Your task to perform on an android device: choose inbox layout in the gmail app Image 0: 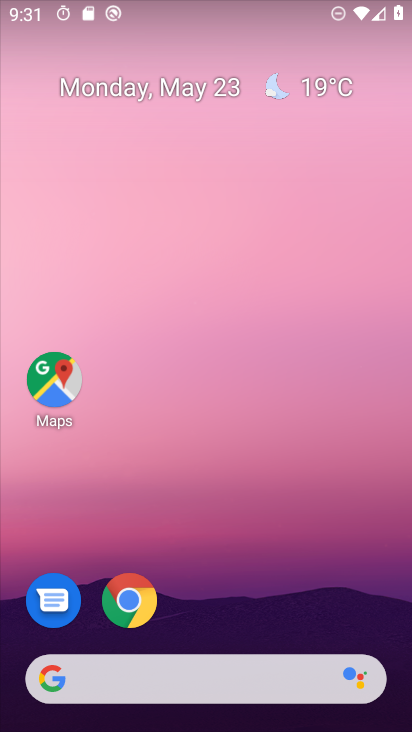
Step 0: press home button
Your task to perform on an android device: choose inbox layout in the gmail app Image 1: 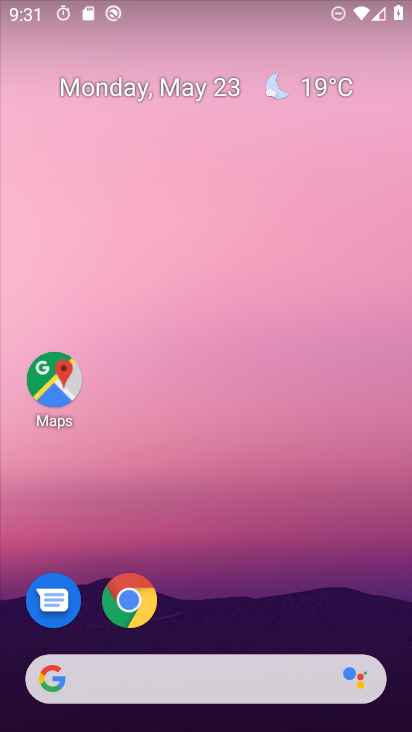
Step 1: drag from (11, 584) to (247, 87)
Your task to perform on an android device: choose inbox layout in the gmail app Image 2: 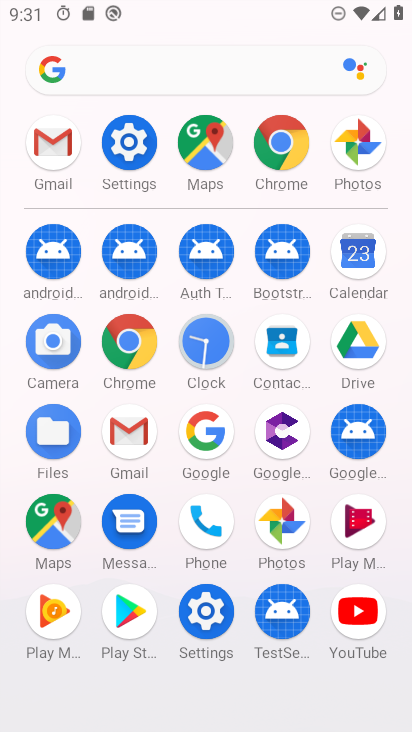
Step 2: click (124, 440)
Your task to perform on an android device: choose inbox layout in the gmail app Image 3: 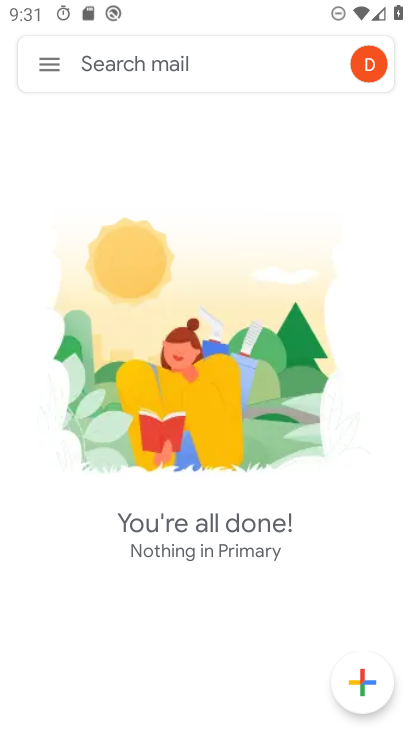
Step 3: click (44, 75)
Your task to perform on an android device: choose inbox layout in the gmail app Image 4: 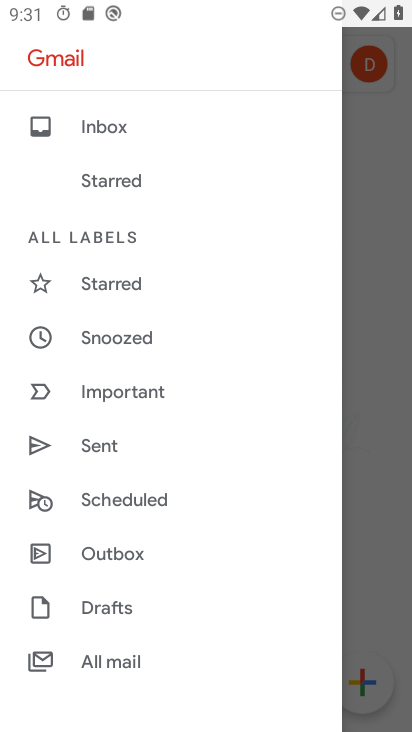
Step 4: click (102, 657)
Your task to perform on an android device: choose inbox layout in the gmail app Image 5: 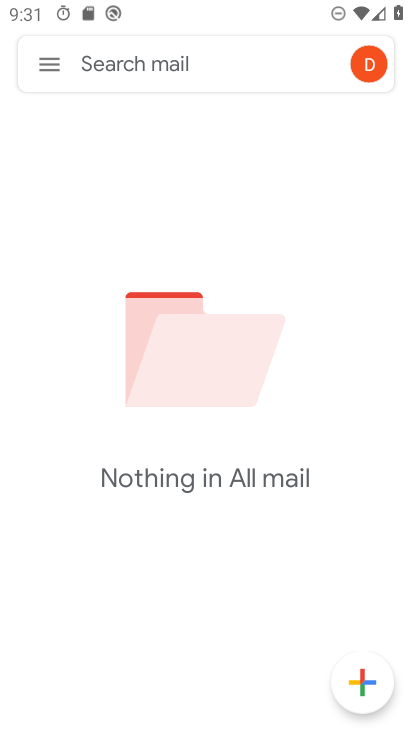
Step 5: task complete